Your task to perform on an android device: turn on showing notifications on the lock screen Image 0: 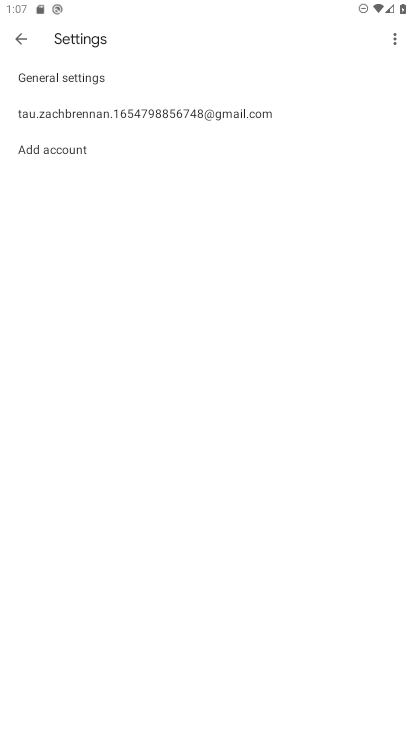
Step 0: click (283, 100)
Your task to perform on an android device: turn on showing notifications on the lock screen Image 1: 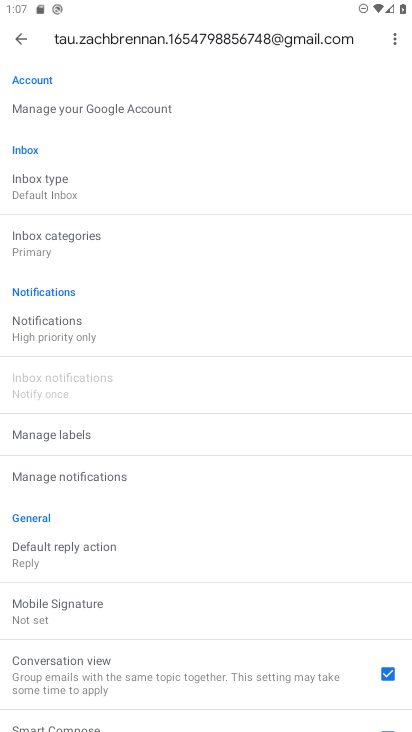
Step 1: click (82, 323)
Your task to perform on an android device: turn on showing notifications on the lock screen Image 2: 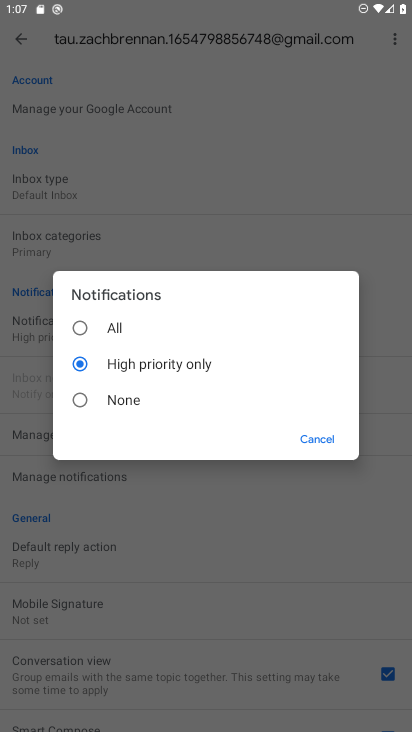
Step 2: click (104, 332)
Your task to perform on an android device: turn on showing notifications on the lock screen Image 3: 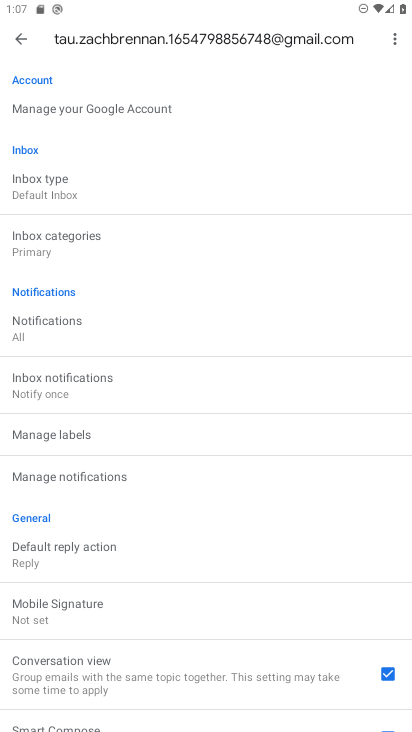
Step 3: task complete